Your task to perform on an android device: turn off smart reply in the gmail app Image 0: 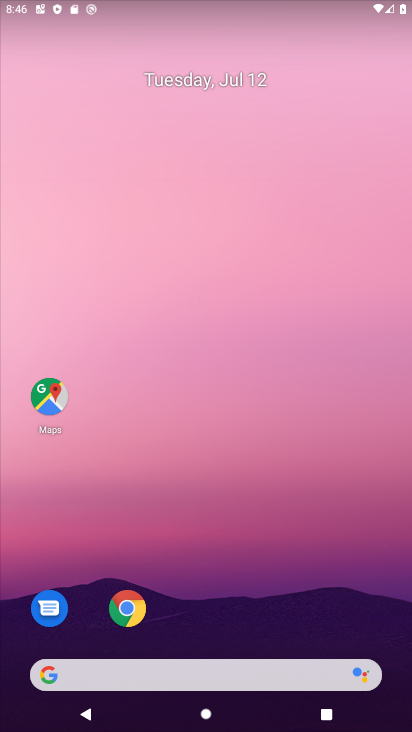
Step 0: drag from (188, 631) to (140, 141)
Your task to perform on an android device: turn off smart reply in the gmail app Image 1: 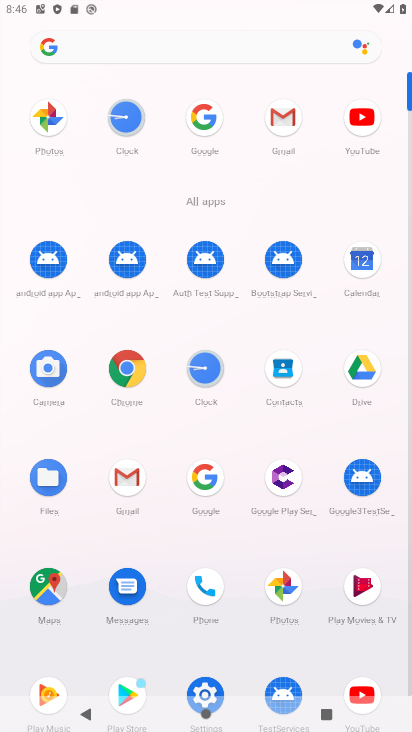
Step 1: click (266, 113)
Your task to perform on an android device: turn off smart reply in the gmail app Image 2: 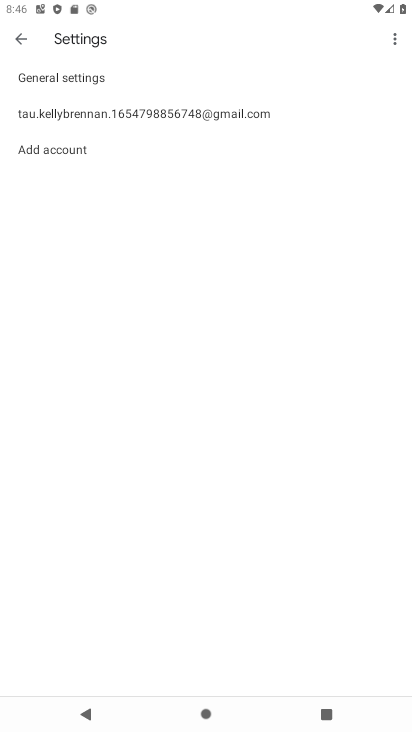
Step 2: click (25, 34)
Your task to perform on an android device: turn off smart reply in the gmail app Image 3: 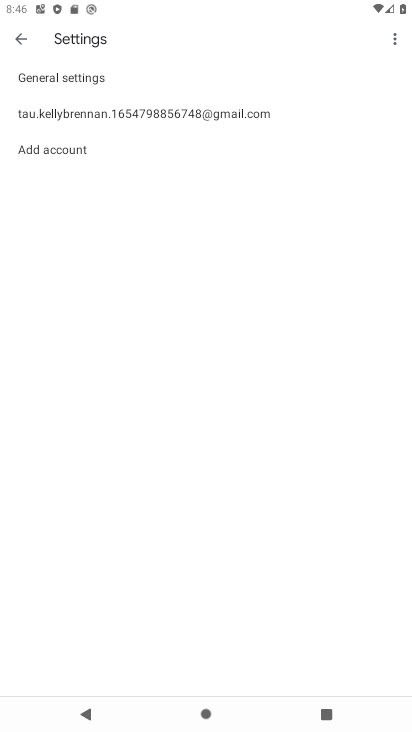
Step 3: click (25, 34)
Your task to perform on an android device: turn off smart reply in the gmail app Image 4: 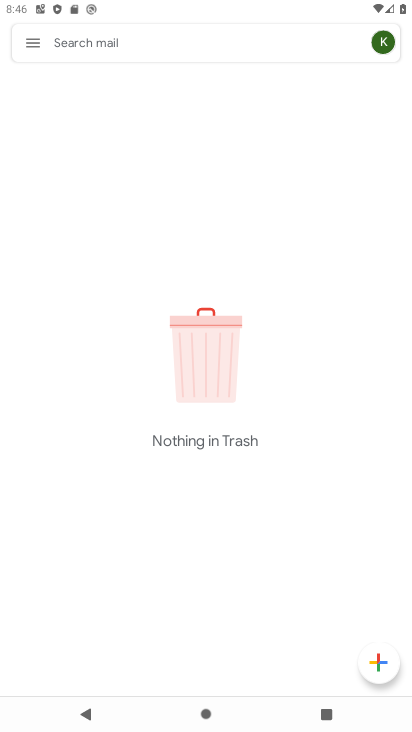
Step 4: click (39, 45)
Your task to perform on an android device: turn off smart reply in the gmail app Image 5: 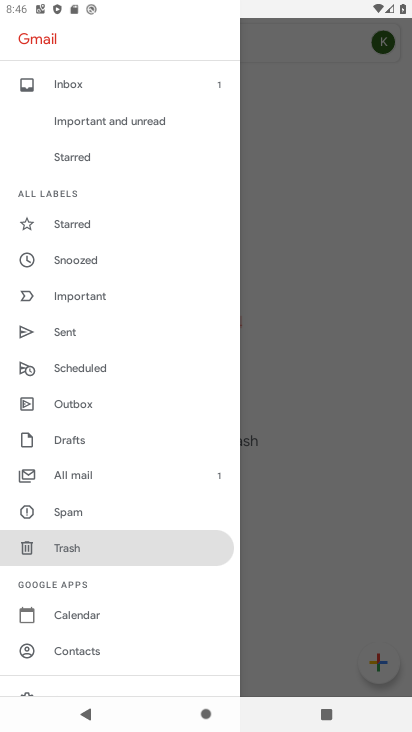
Step 5: drag from (148, 627) to (157, 197)
Your task to perform on an android device: turn off smart reply in the gmail app Image 6: 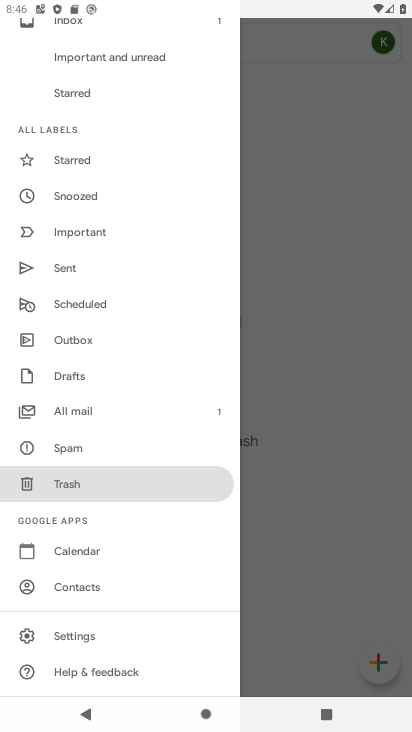
Step 6: click (66, 632)
Your task to perform on an android device: turn off smart reply in the gmail app Image 7: 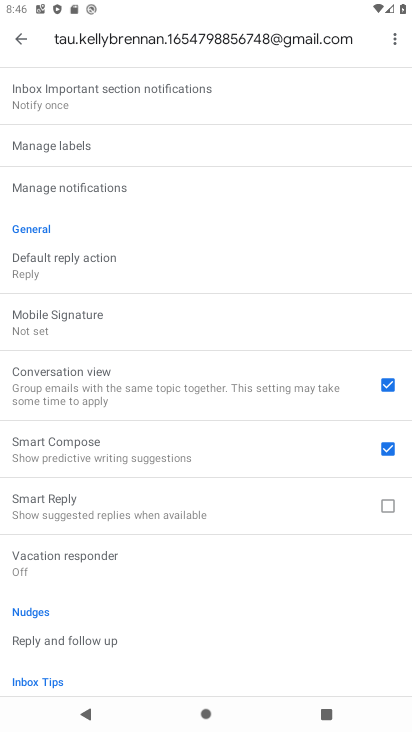
Step 7: task complete